Your task to perform on an android device: install app "Microsoft Authenticator" Image 0: 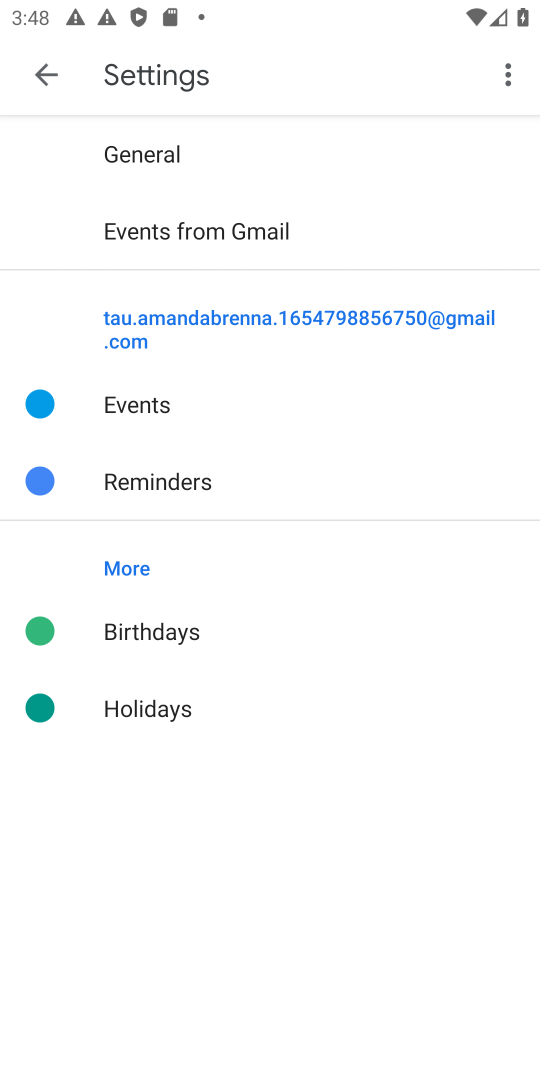
Step 0: press home button
Your task to perform on an android device: install app "Microsoft Authenticator" Image 1: 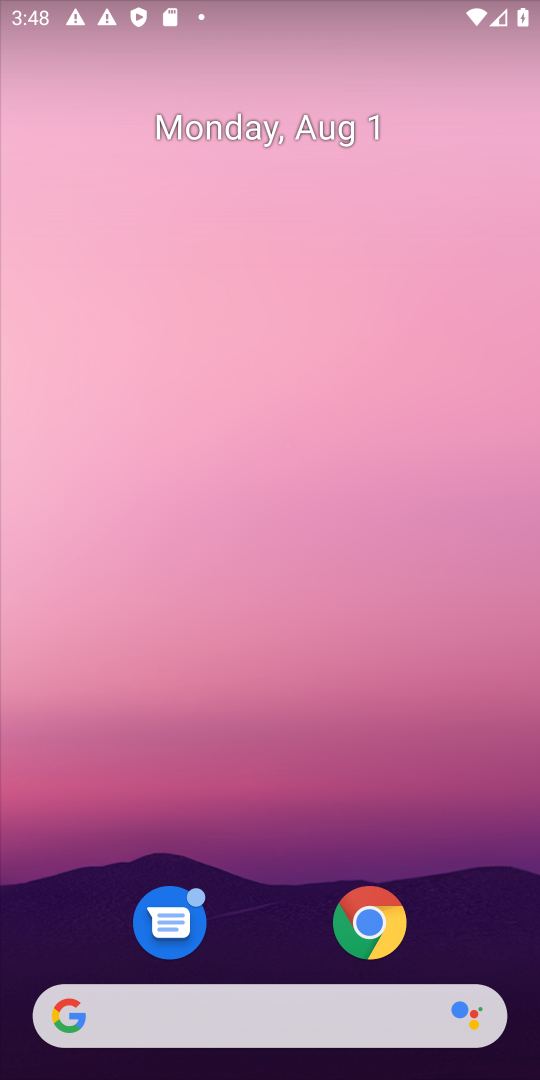
Step 1: drag from (438, 956) to (428, 24)
Your task to perform on an android device: install app "Microsoft Authenticator" Image 2: 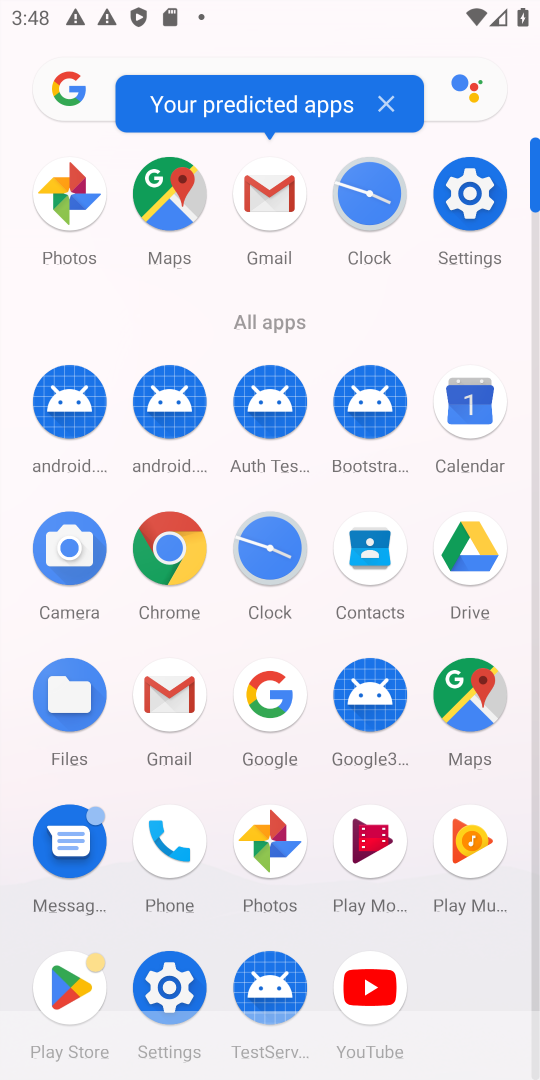
Step 2: click (61, 990)
Your task to perform on an android device: install app "Microsoft Authenticator" Image 3: 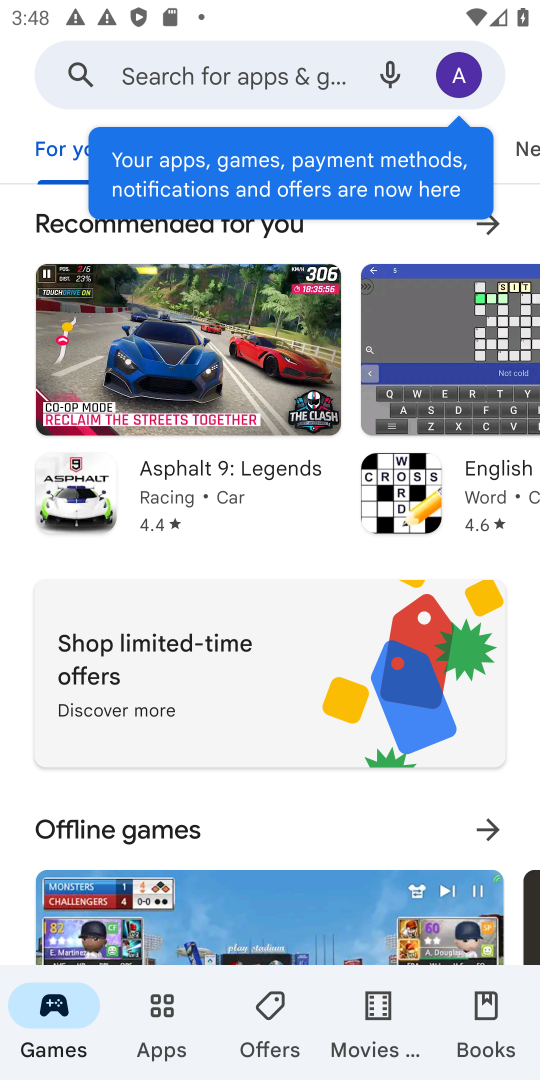
Step 3: click (234, 72)
Your task to perform on an android device: install app "Microsoft Authenticator" Image 4: 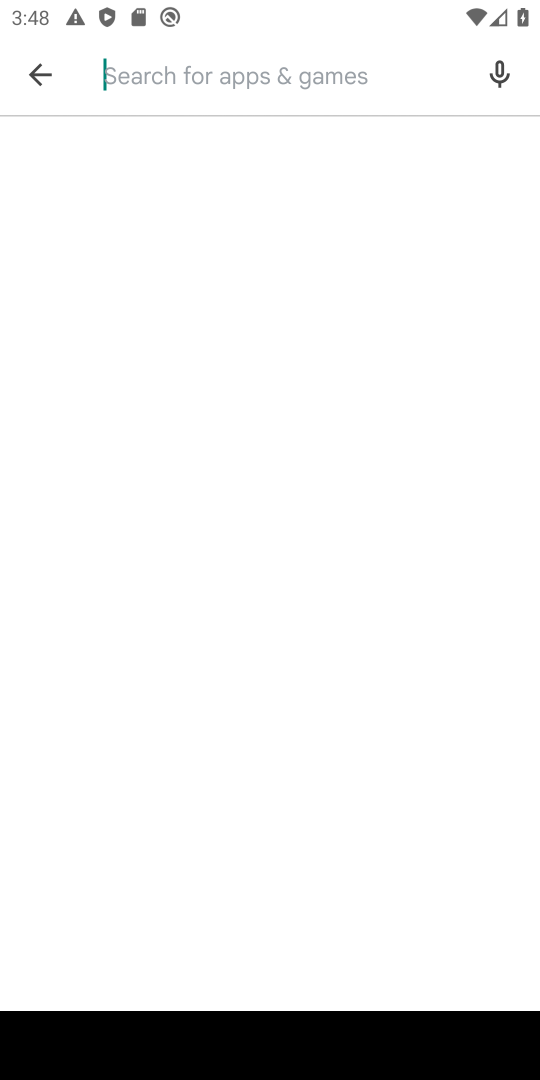
Step 4: type "Microsoft Authenticator"
Your task to perform on an android device: install app "Microsoft Authenticator" Image 5: 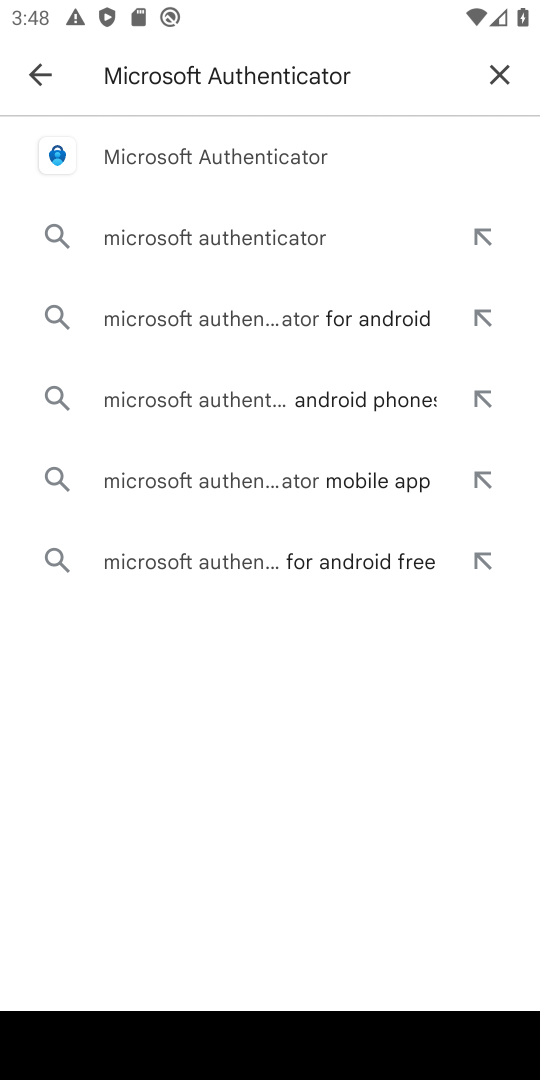
Step 5: click (144, 167)
Your task to perform on an android device: install app "Microsoft Authenticator" Image 6: 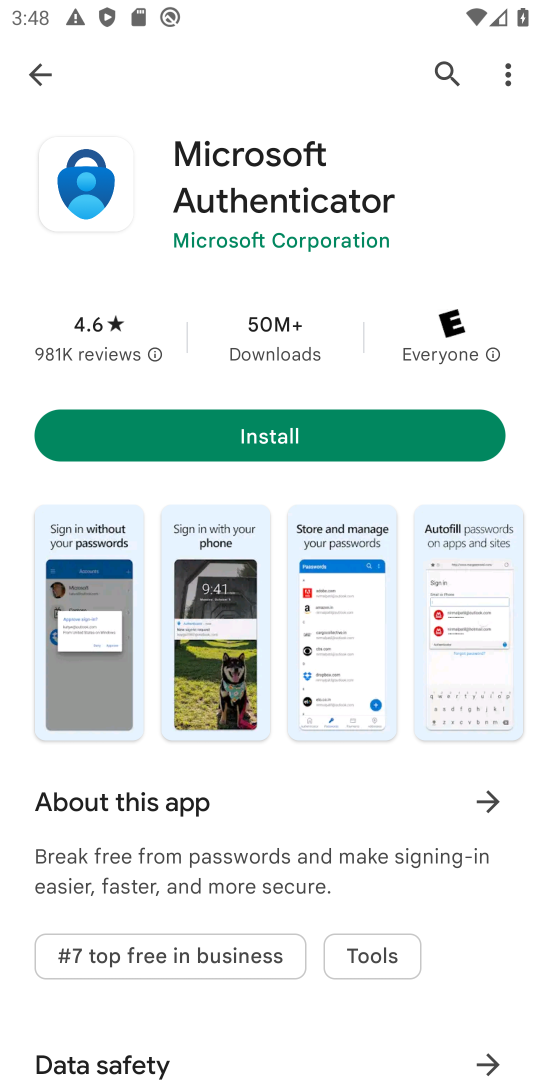
Step 6: click (173, 420)
Your task to perform on an android device: install app "Microsoft Authenticator" Image 7: 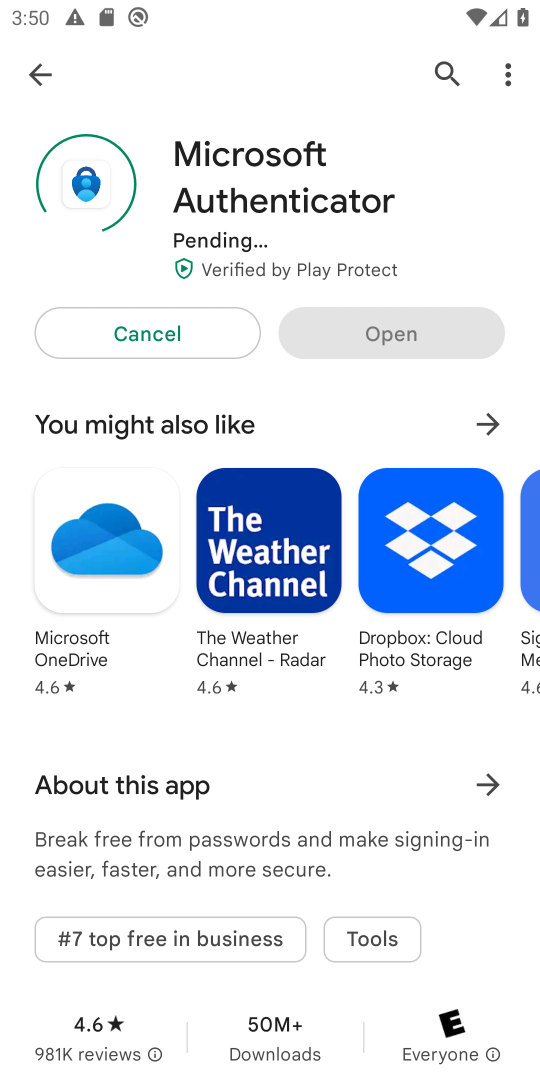
Step 7: click (169, 338)
Your task to perform on an android device: install app "Microsoft Authenticator" Image 8: 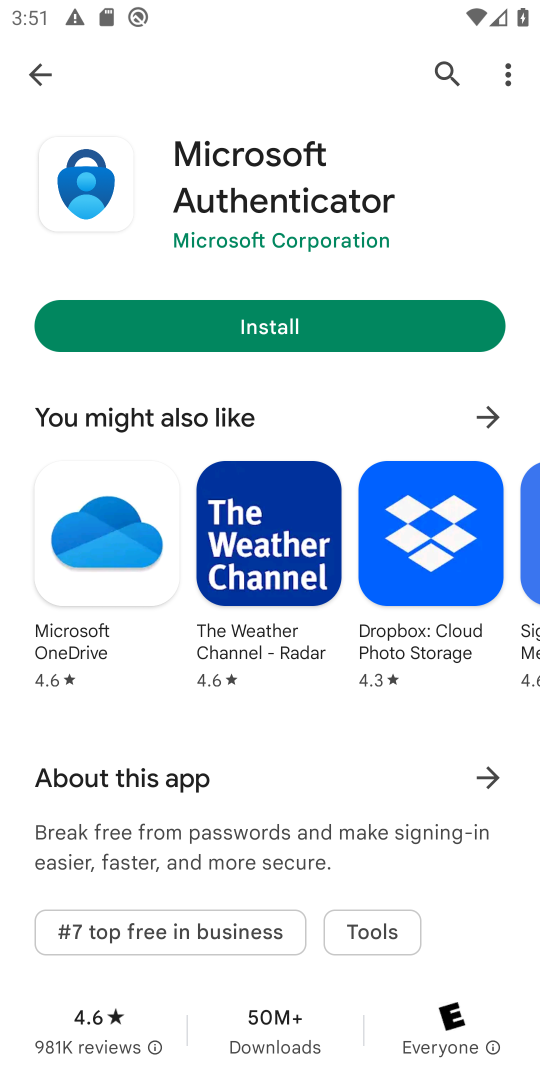
Step 8: click (169, 338)
Your task to perform on an android device: install app "Microsoft Authenticator" Image 9: 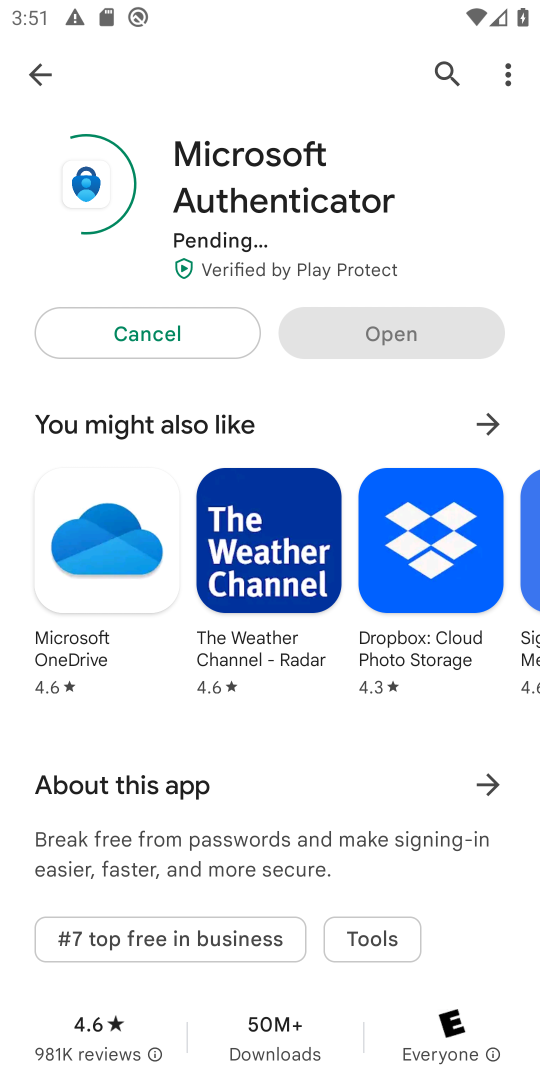
Step 9: task complete